Your task to perform on an android device: Open maps Image 0: 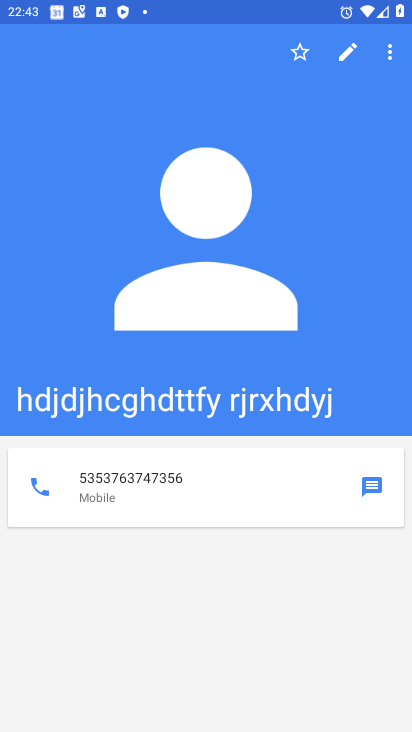
Step 0: press home button
Your task to perform on an android device: Open maps Image 1: 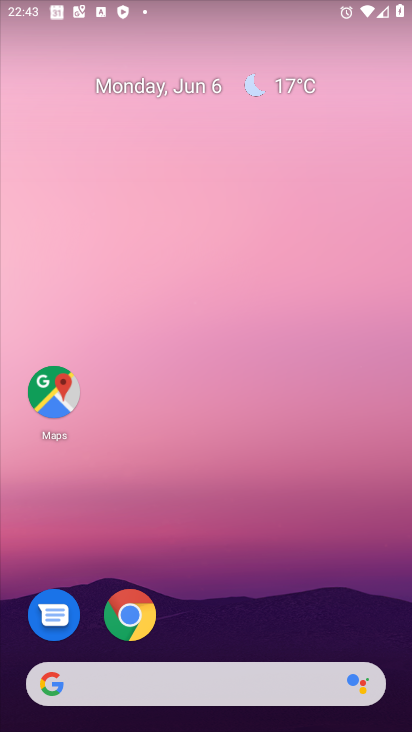
Step 1: click (47, 397)
Your task to perform on an android device: Open maps Image 2: 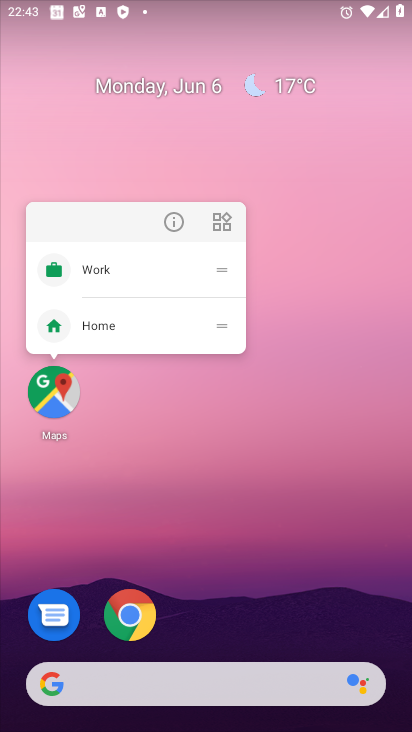
Step 2: click (47, 397)
Your task to perform on an android device: Open maps Image 3: 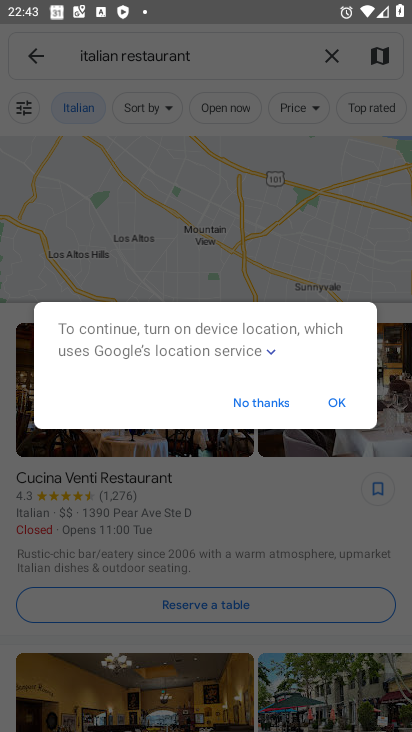
Step 3: click (334, 400)
Your task to perform on an android device: Open maps Image 4: 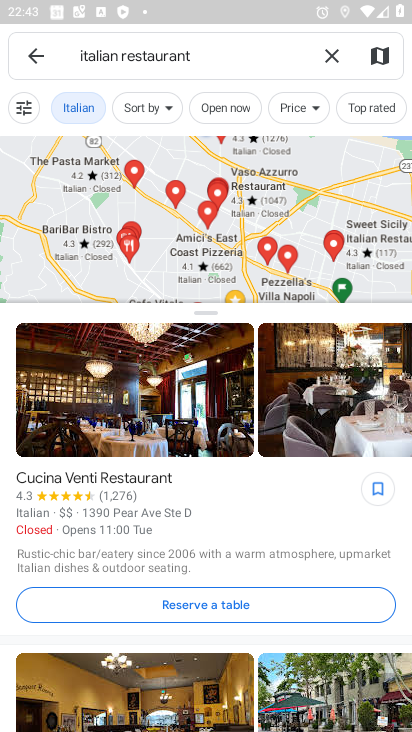
Step 4: task complete